Your task to perform on an android device: see tabs open on other devices in the chrome app Image 0: 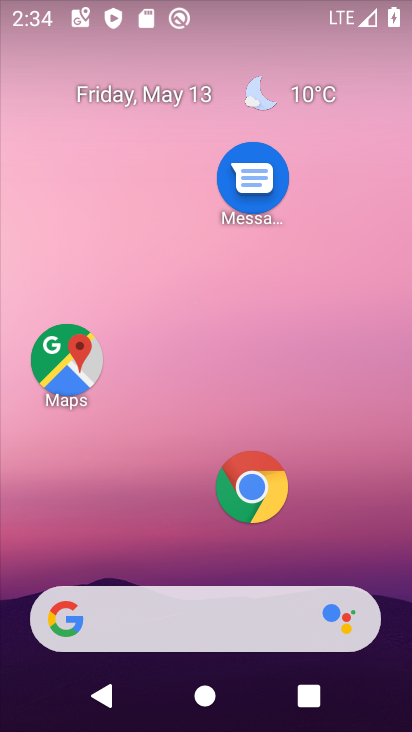
Step 0: click (247, 485)
Your task to perform on an android device: see tabs open on other devices in the chrome app Image 1: 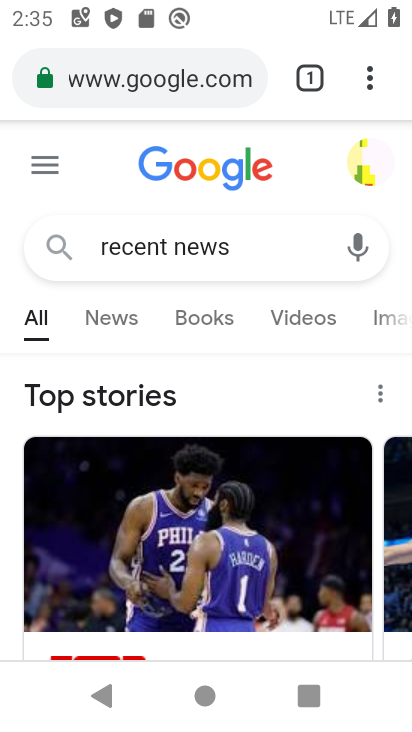
Step 1: click (11, 666)
Your task to perform on an android device: see tabs open on other devices in the chrome app Image 2: 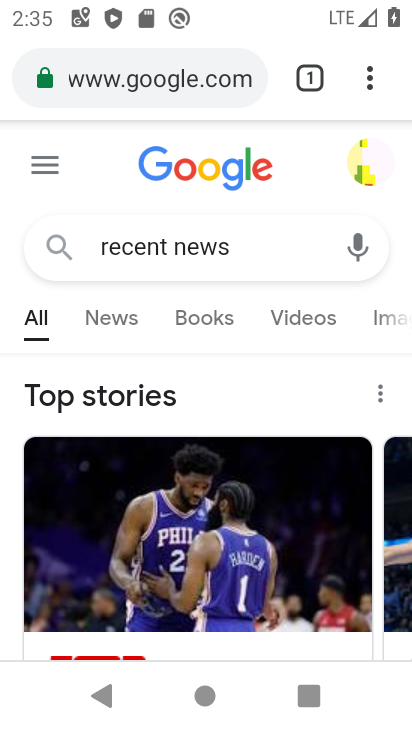
Step 2: click (318, 78)
Your task to perform on an android device: see tabs open on other devices in the chrome app Image 3: 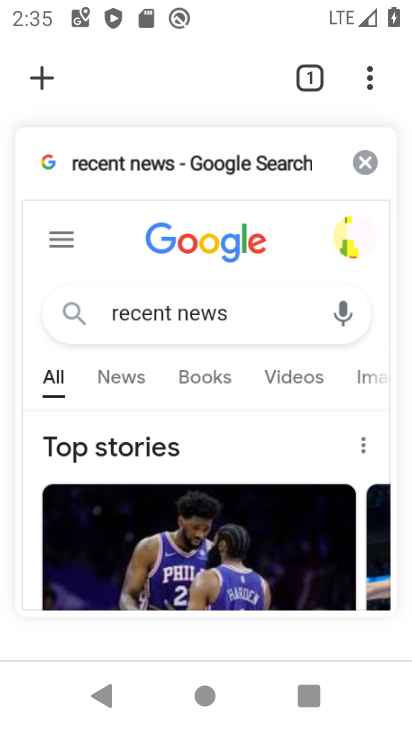
Step 3: click (373, 84)
Your task to perform on an android device: see tabs open on other devices in the chrome app Image 4: 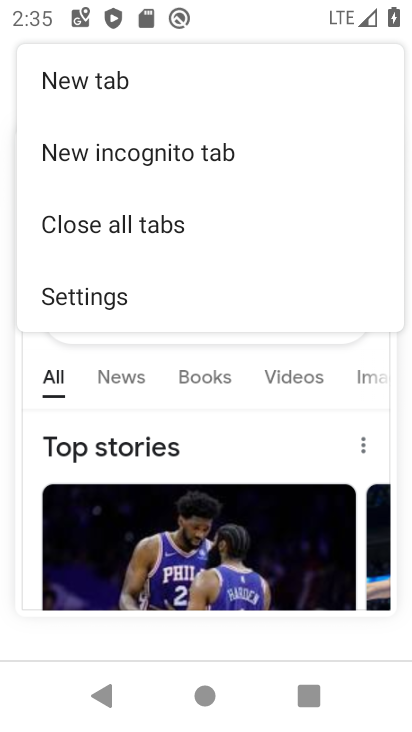
Step 4: task complete